Your task to perform on an android device: Open Google Chrome and click the shortcut for Amazon.com Image 0: 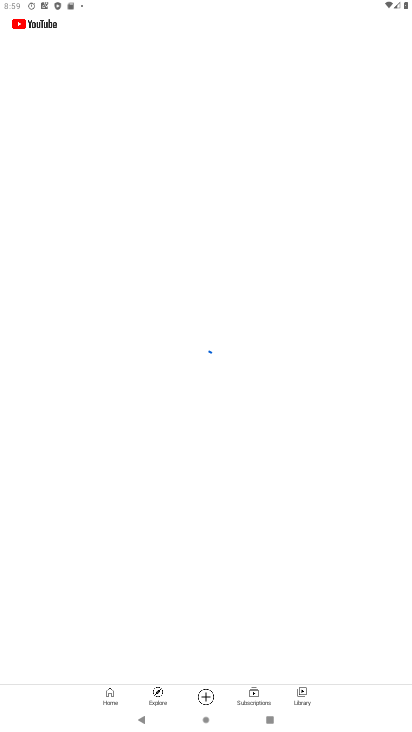
Step 0: click (190, 214)
Your task to perform on an android device: Open Google Chrome and click the shortcut for Amazon.com Image 1: 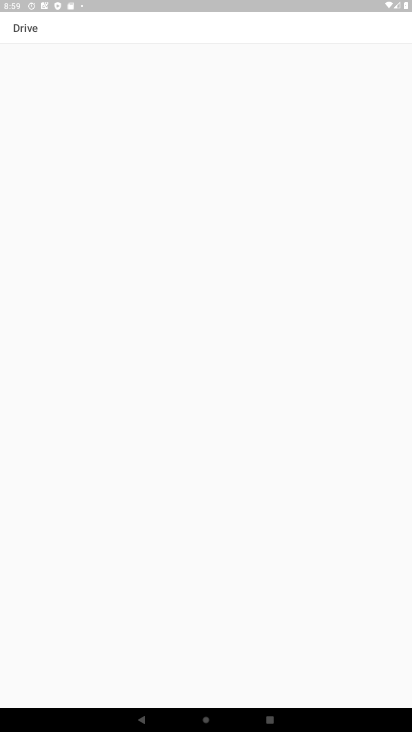
Step 1: press home button
Your task to perform on an android device: Open Google Chrome and click the shortcut for Amazon.com Image 2: 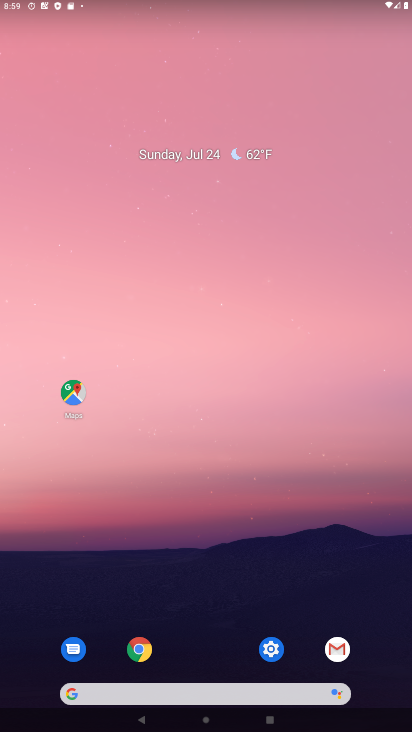
Step 2: click (148, 657)
Your task to perform on an android device: Open Google Chrome and click the shortcut for Amazon.com Image 3: 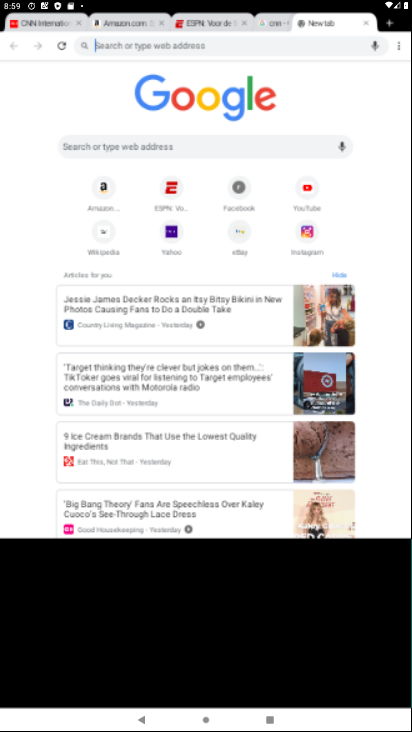
Step 3: click (98, 195)
Your task to perform on an android device: Open Google Chrome and click the shortcut for Amazon.com Image 4: 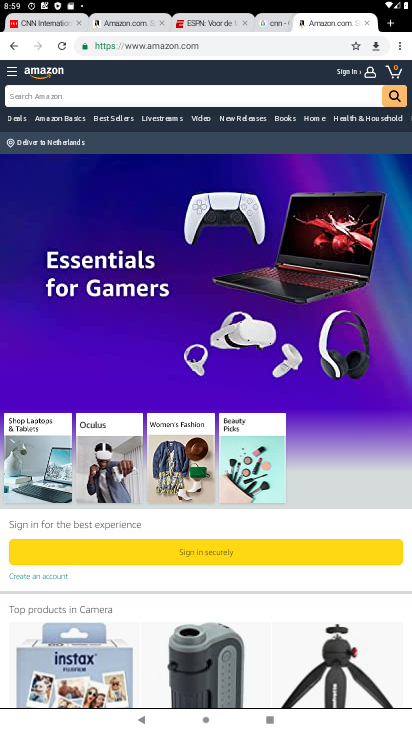
Step 4: click (395, 49)
Your task to perform on an android device: Open Google Chrome and click the shortcut for Amazon.com Image 5: 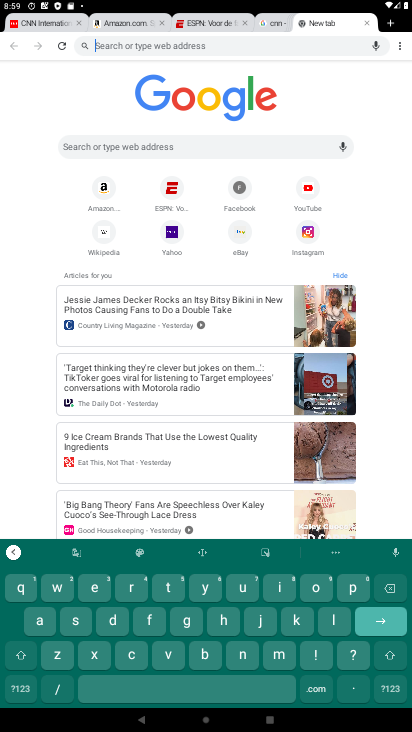
Step 5: click (92, 188)
Your task to perform on an android device: Open Google Chrome and click the shortcut for Amazon.com Image 6: 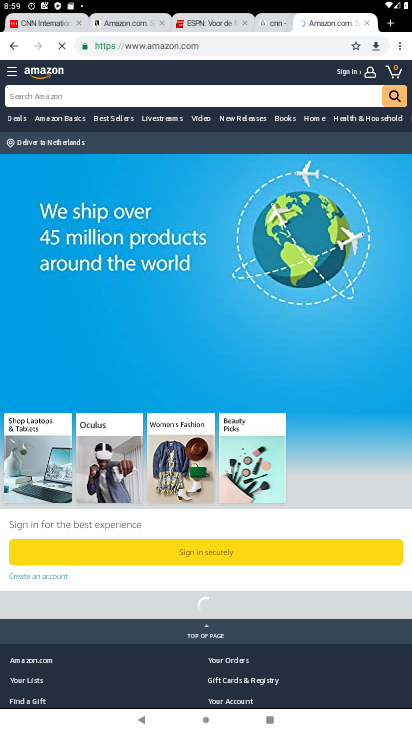
Step 6: click (399, 49)
Your task to perform on an android device: Open Google Chrome and click the shortcut for Amazon.com Image 7: 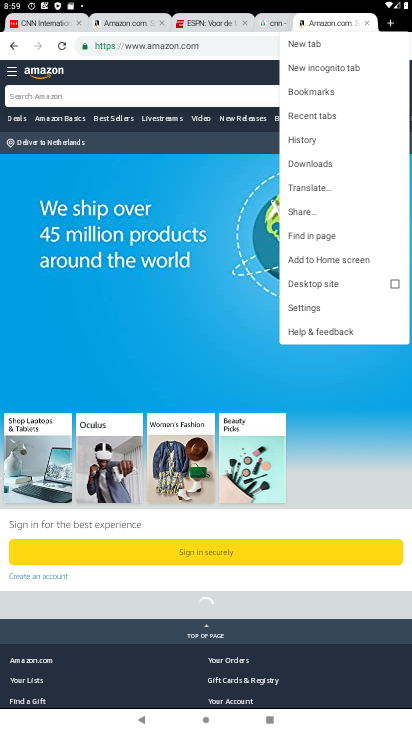
Step 7: click (314, 265)
Your task to perform on an android device: Open Google Chrome and click the shortcut for Amazon.com Image 8: 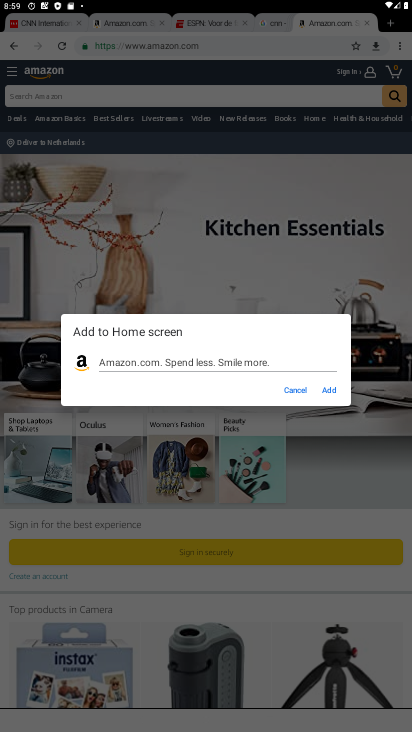
Step 8: click (333, 400)
Your task to perform on an android device: Open Google Chrome and click the shortcut for Amazon.com Image 9: 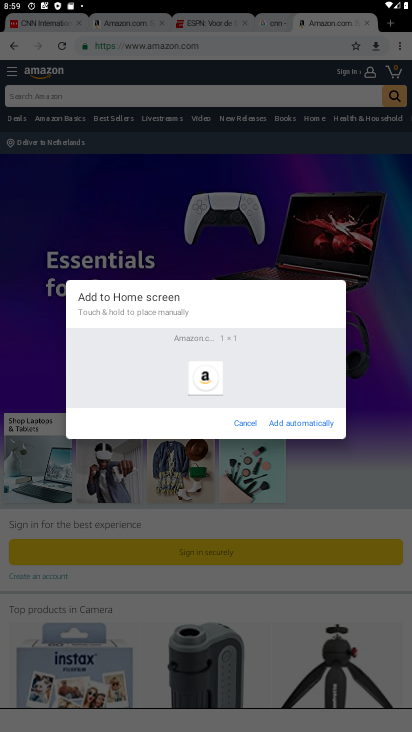
Step 9: click (329, 424)
Your task to perform on an android device: Open Google Chrome and click the shortcut for Amazon.com Image 10: 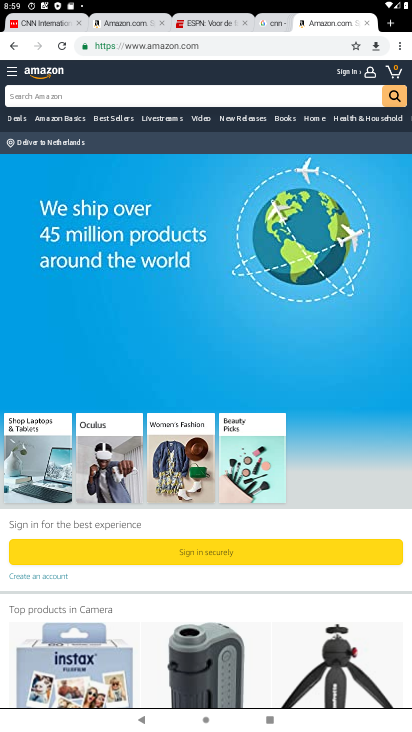
Step 10: task complete